Your task to perform on an android device: toggle notifications settings in the gmail app Image 0: 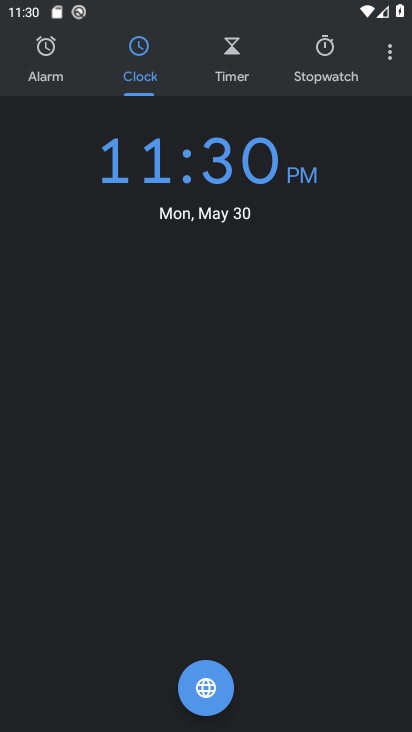
Step 0: press home button
Your task to perform on an android device: toggle notifications settings in the gmail app Image 1: 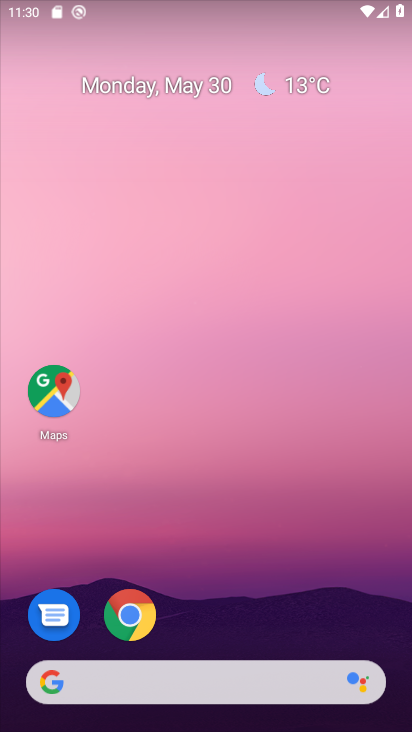
Step 1: drag from (158, 656) to (282, 184)
Your task to perform on an android device: toggle notifications settings in the gmail app Image 2: 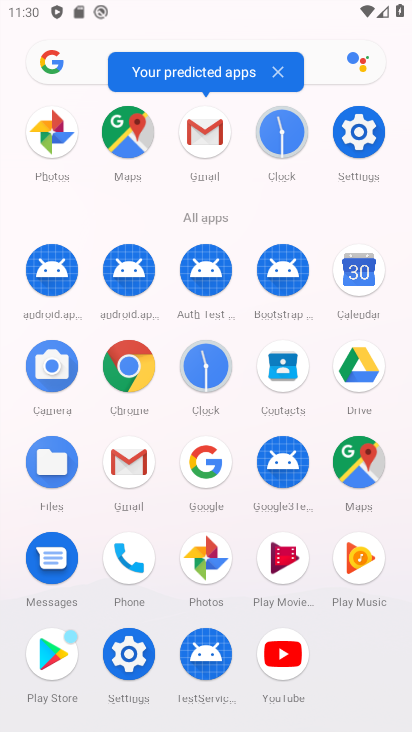
Step 2: click (130, 471)
Your task to perform on an android device: toggle notifications settings in the gmail app Image 3: 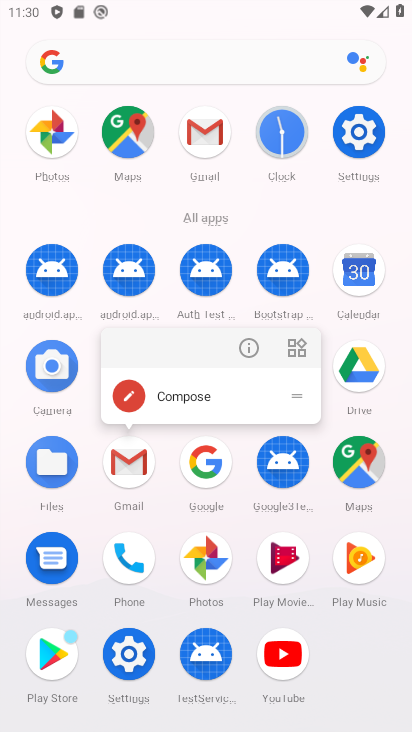
Step 3: click (135, 476)
Your task to perform on an android device: toggle notifications settings in the gmail app Image 4: 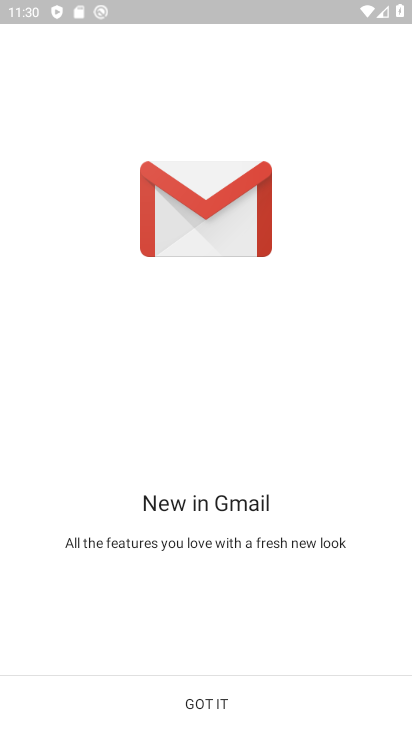
Step 4: click (215, 720)
Your task to perform on an android device: toggle notifications settings in the gmail app Image 5: 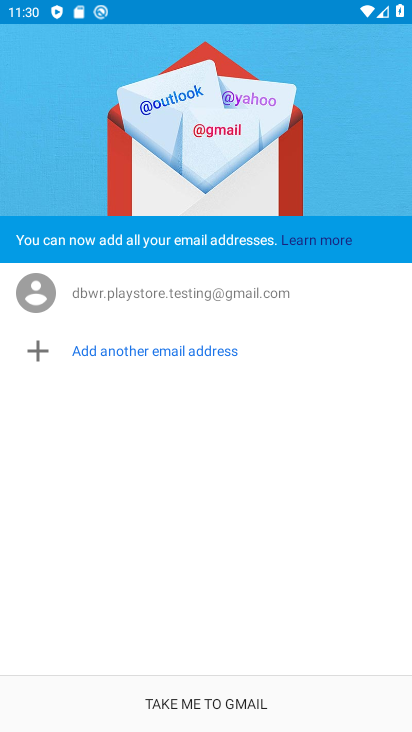
Step 5: click (338, 710)
Your task to perform on an android device: toggle notifications settings in the gmail app Image 6: 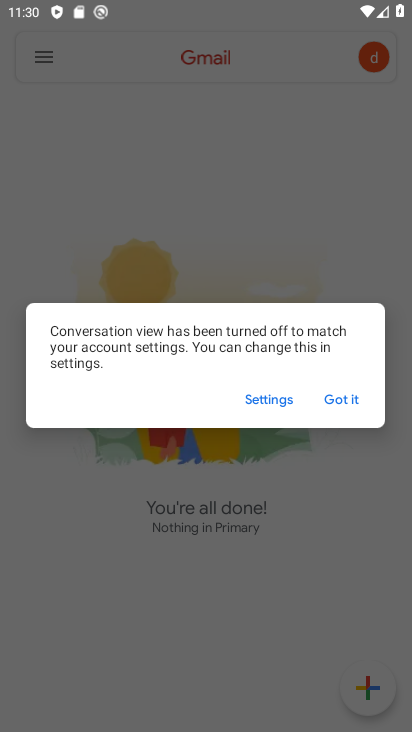
Step 6: click (363, 396)
Your task to perform on an android device: toggle notifications settings in the gmail app Image 7: 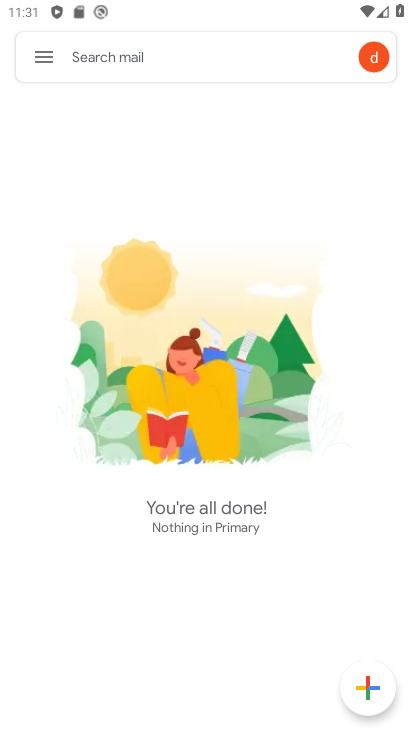
Step 7: click (50, 59)
Your task to perform on an android device: toggle notifications settings in the gmail app Image 8: 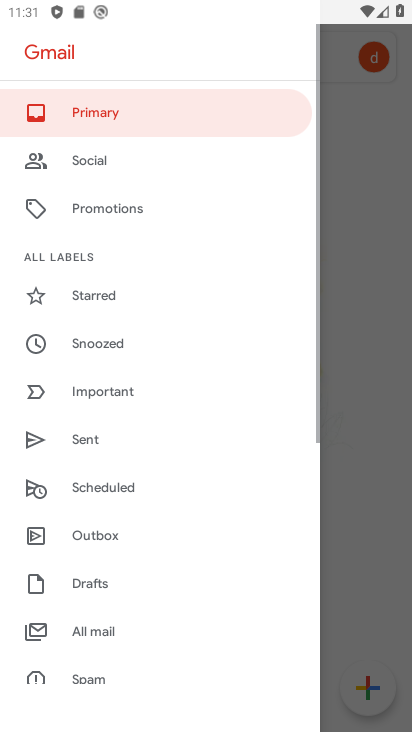
Step 8: drag from (83, 645) to (204, 332)
Your task to perform on an android device: toggle notifications settings in the gmail app Image 9: 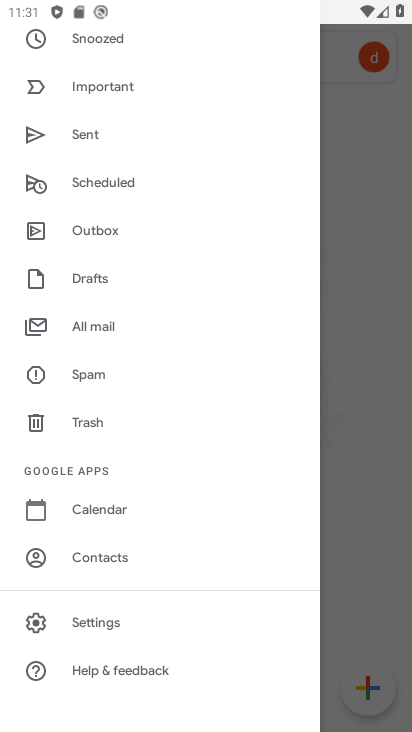
Step 9: click (128, 622)
Your task to perform on an android device: toggle notifications settings in the gmail app Image 10: 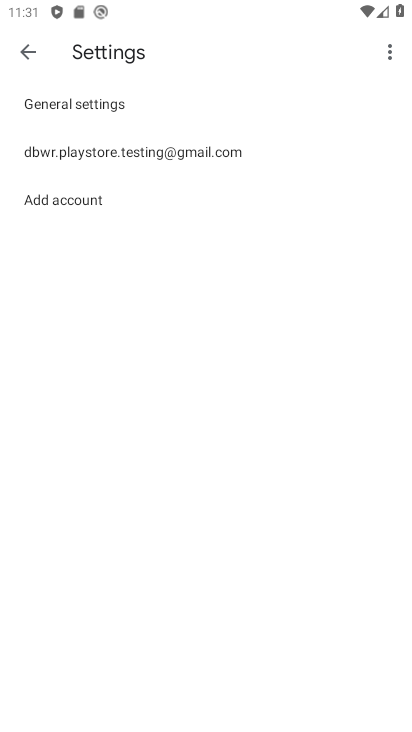
Step 10: click (243, 161)
Your task to perform on an android device: toggle notifications settings in the gmail app Image 11: 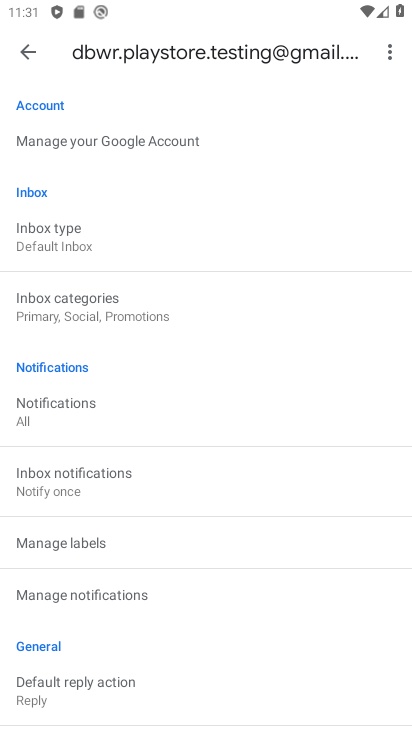
Step 11: click (152, 600)
Your task to perform on an android device: toggle notifications settings in the gmail app Image 12: 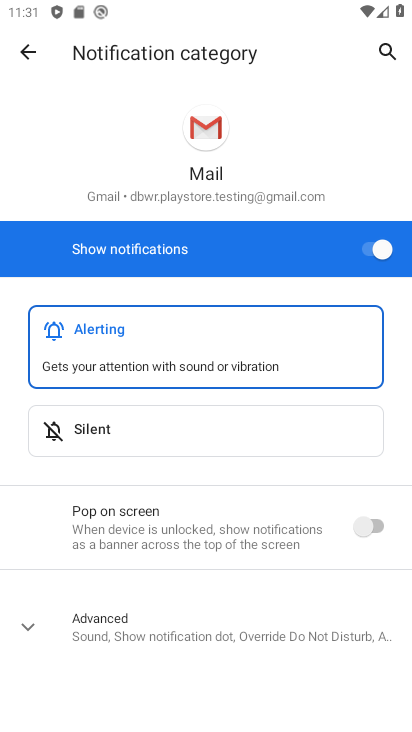
Step 12: click (356, 244)
Your task to perform on an android device: toggle notifications settings in the gmail app Image 13: 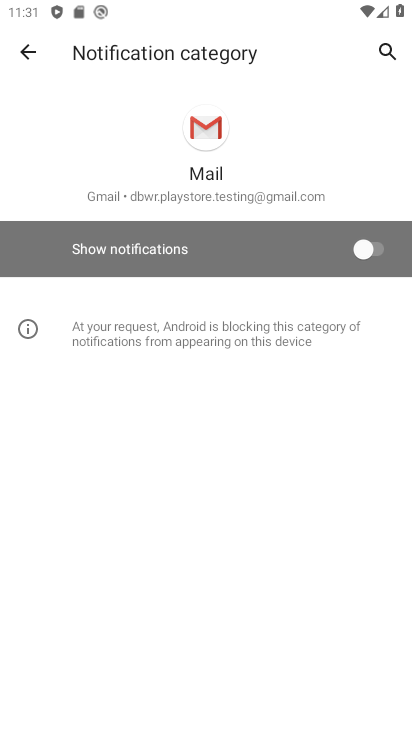
Step 13: task complete